Your task to perform on an android device: Open Google Maps and go to "Timeline" Image 0: 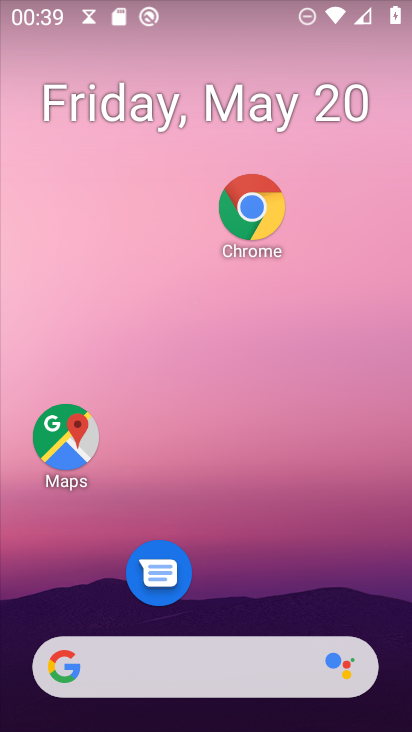
Step 0: drag from (314, 584) to (351, 56)
Your task to perform on an android device: Open Google Maps and go to "Timeline" Image 1: 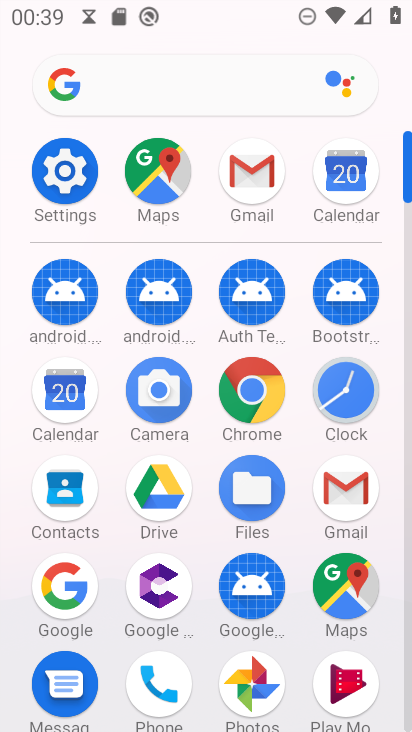
Step 1: click (173, 184)
Your task to perform on an android device: Open Google Maps and go to "Timeline" Image 2: 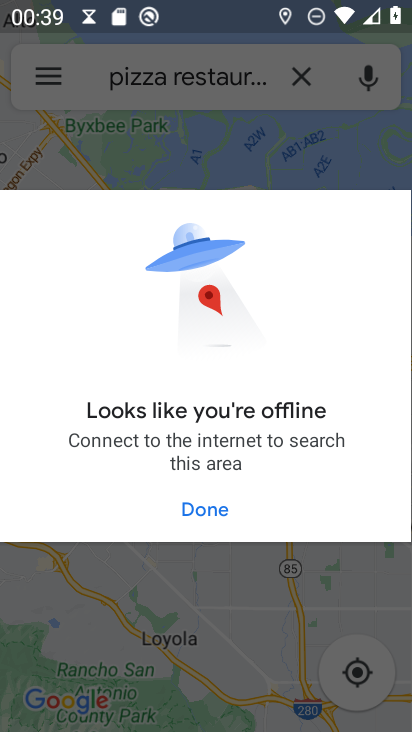
Step 2: press back button
Your task to perform on an android device: Open Google Maps and go to "Timeline" Image 3: 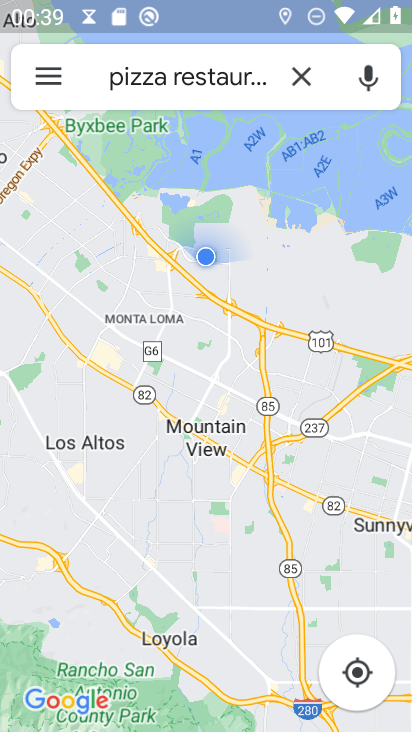
Step 3: click (59, 90)
Your task to perform on an android device: Open Google Maps and go to "Timeline" Image 4: 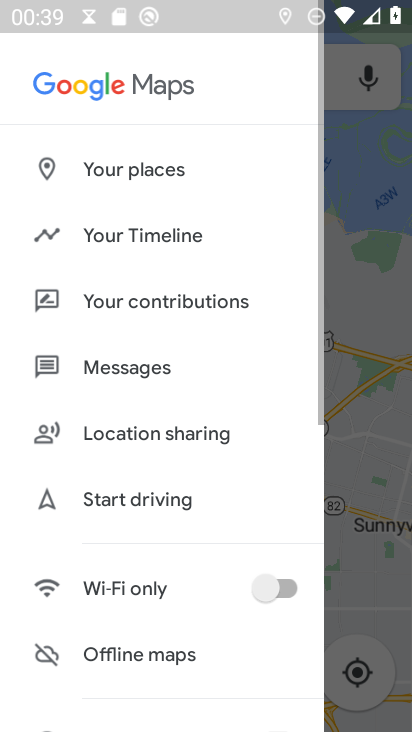
Step 4: click (152, 225)
Your task to perform on an android device: Open Google Maps and go to "Timeline" Image 5: 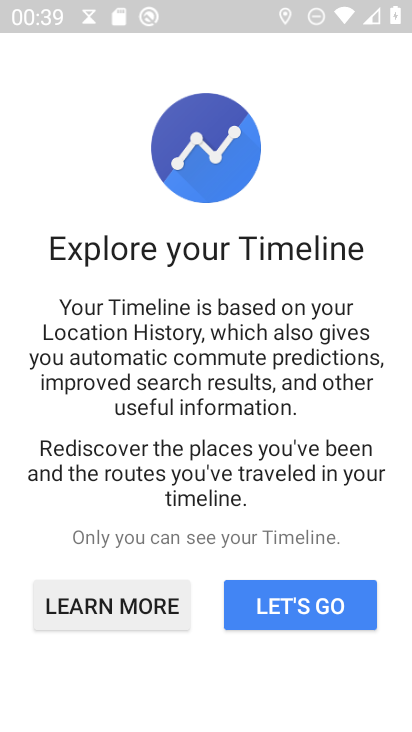
Step 5: drag from (288, 522) to (309, 97)
Your task to perform on an android device: Open Google Maps and go to "Timeline" Image 6: 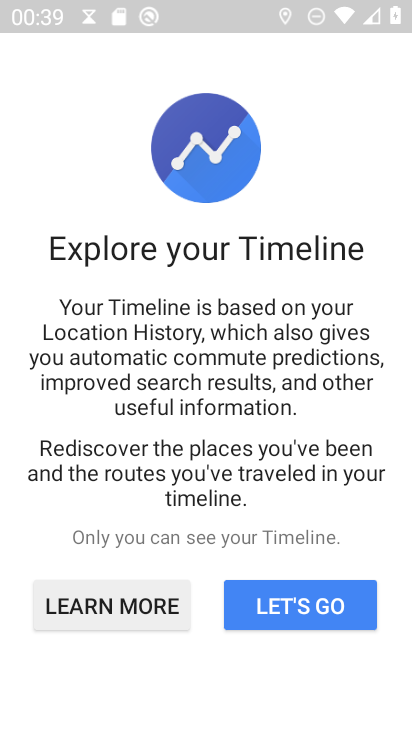
Step 6: click (322, 606)
Your task to perform on an android device: Open Google Maps and go to "Timeline" Image 7: 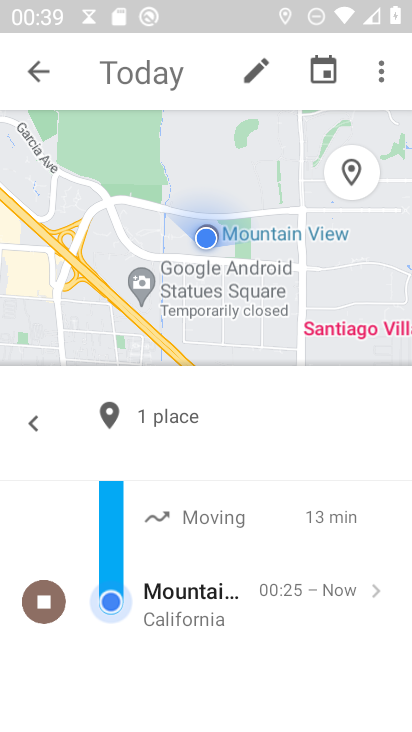
Step 7: task complete